Your task to perform on an android device: Go to Yahoo.com Image 0: 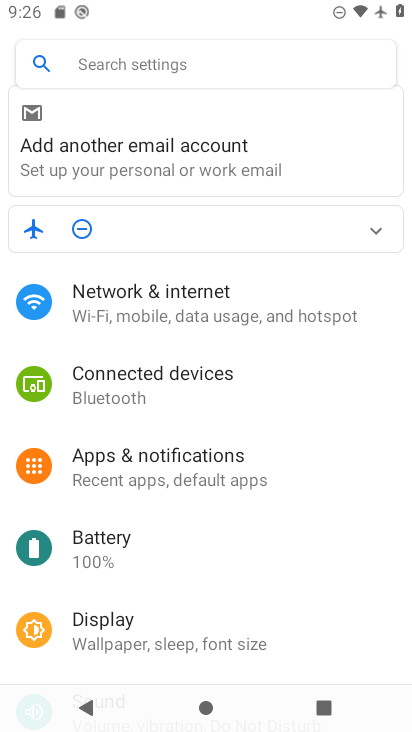
Step 0: press home button
Your task to perform on an android device: Go to Yahoo.com Image 1: 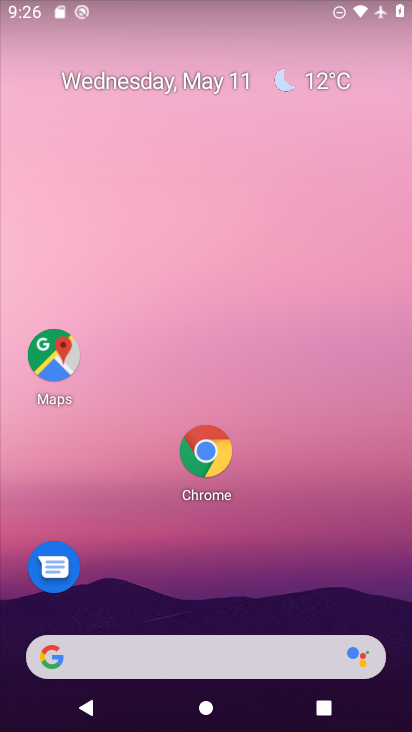
Step 1: click (203, 462)
Your task to perform on an android device: Go to Yahoo.com Image 2: 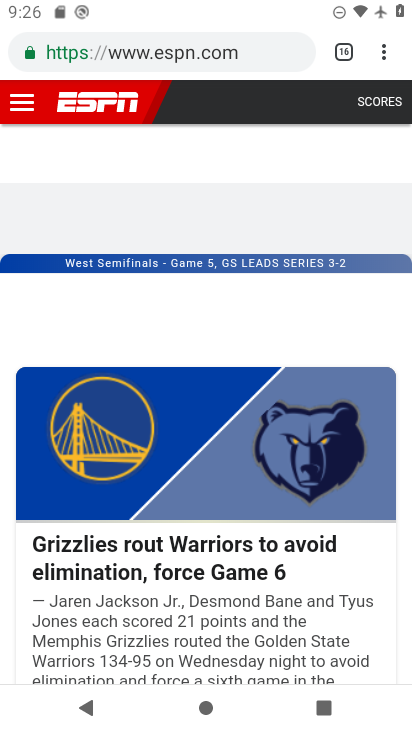
Step 2: drag from (384, 56) to (323, 107)
Your task to perform on an android device: Go to Yahoo.com Image 3: 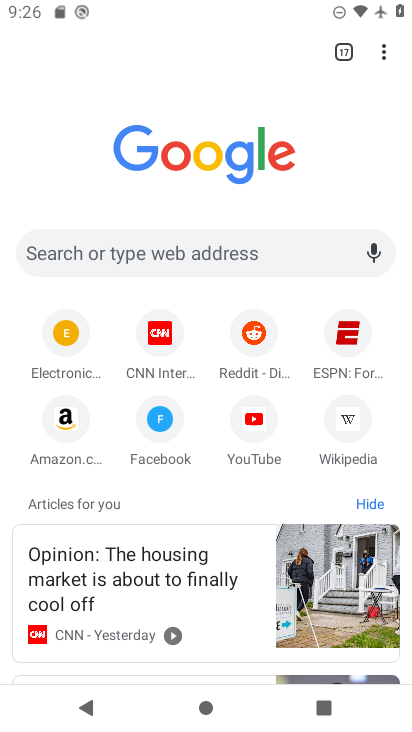
Step 3: click (159, 249)
Your task to perform on an android device: Go to Yahoo.com Image 4: 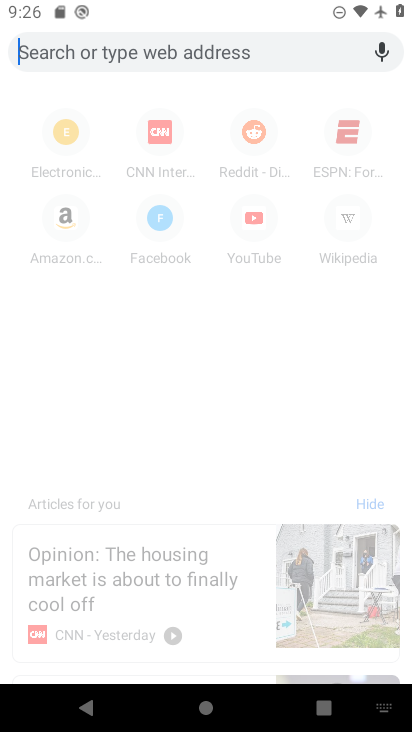
Step 4: type "yahoo.com"
Your task to perform on an android device: Go to Yahoo.com Image 5: 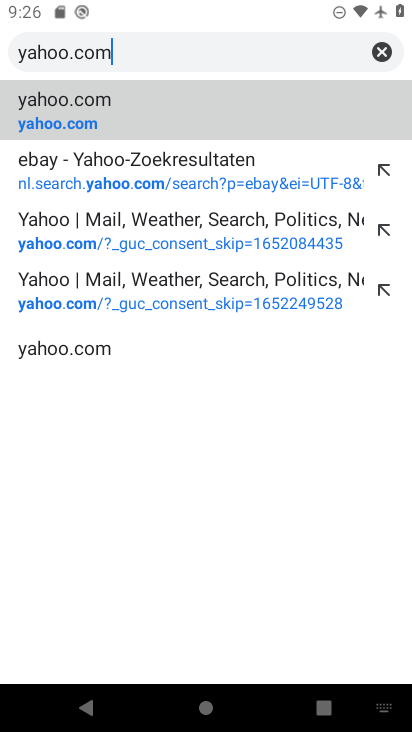
Step 5: click (96, 114)
Your task to perform on an android device: Go to Yahoo.com Image 6: 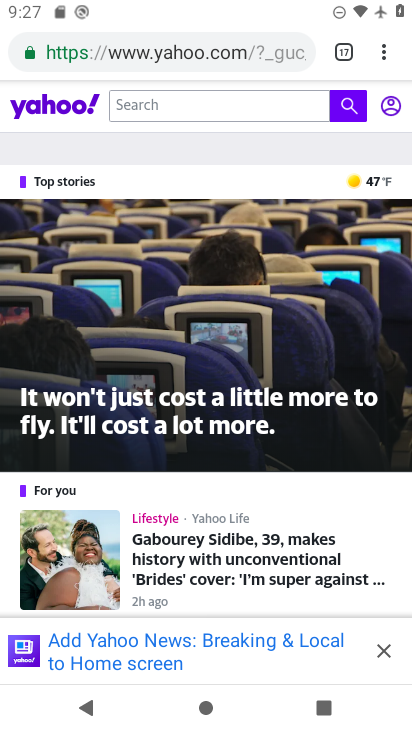
Step 6: task complete